Your task to perform on an android device: change the clock display to analog Image 0: 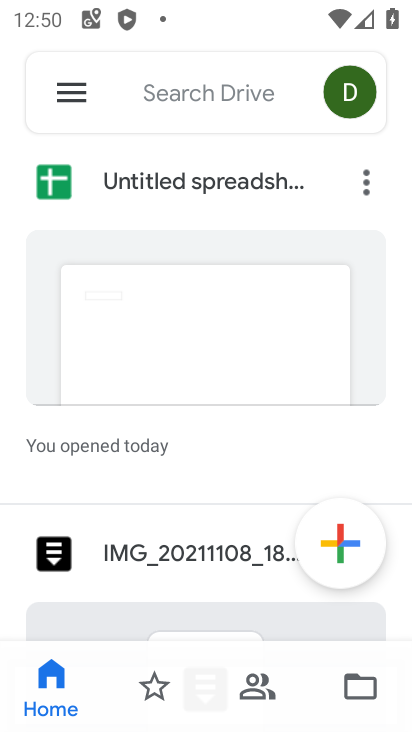
Step 0: press home button
Your task to perform on an android device: change the clock display to analog Image 1: 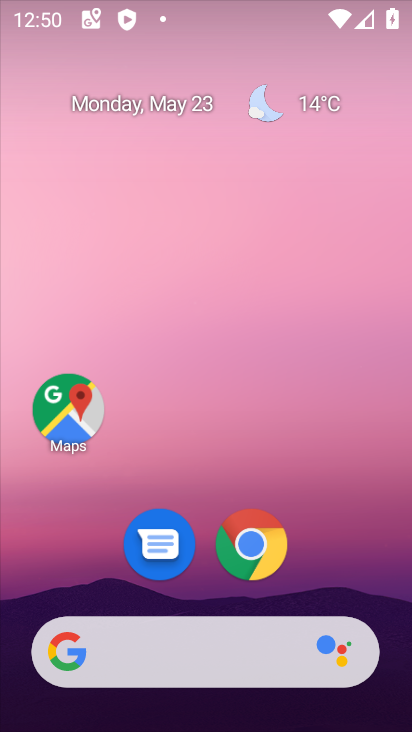
Step 1: drag from (290, 486) to (279, 32)
Your task to perform on an android device: change the clock display to analog Image 2: 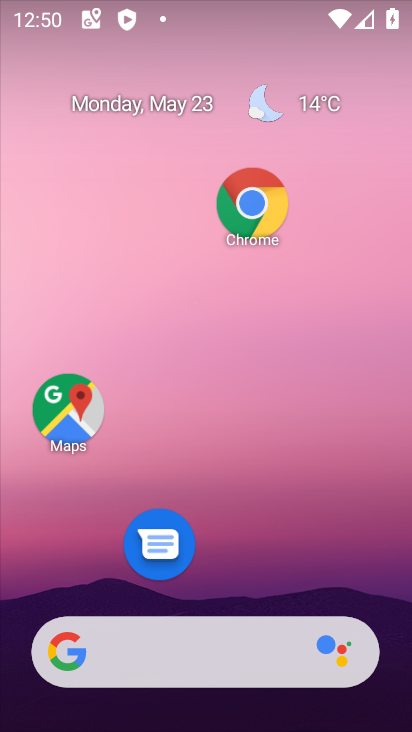
Step 2: drag from (209, 535) to (253, 94)
Your task to perform on an android device: change the clock display to analog Image 3: 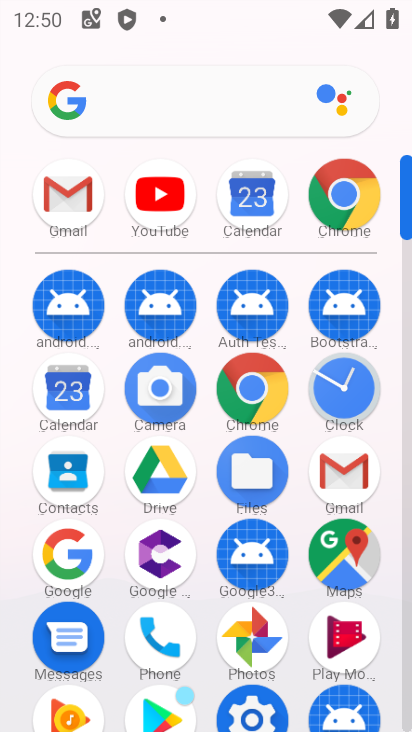
Step 3: click (354, 390)
Your task to perform on an android device: change the clock display to analog Image 4: 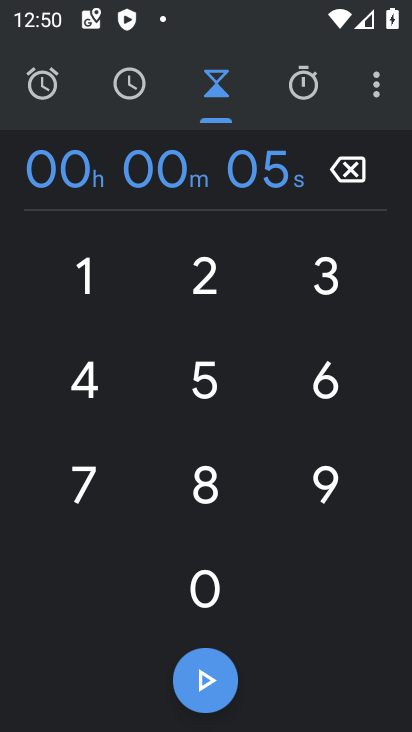
Step 4: click (381, 73)
Your task to perform on an android device: change the clock display to analog Image 5: 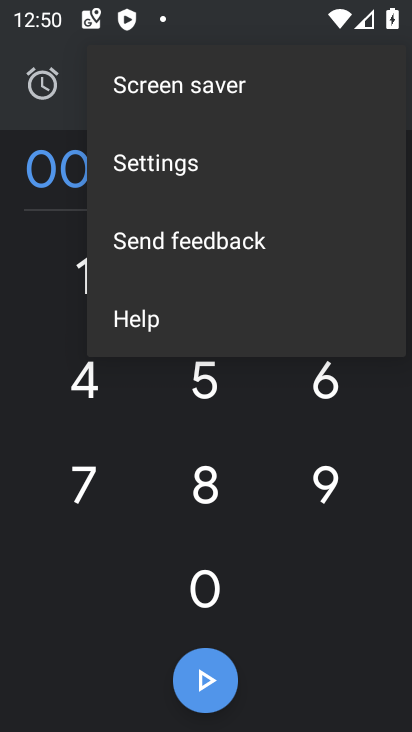
Step 5: click (208, 174)
Your task to perform on an android device: change the clock display to analog Image 6: 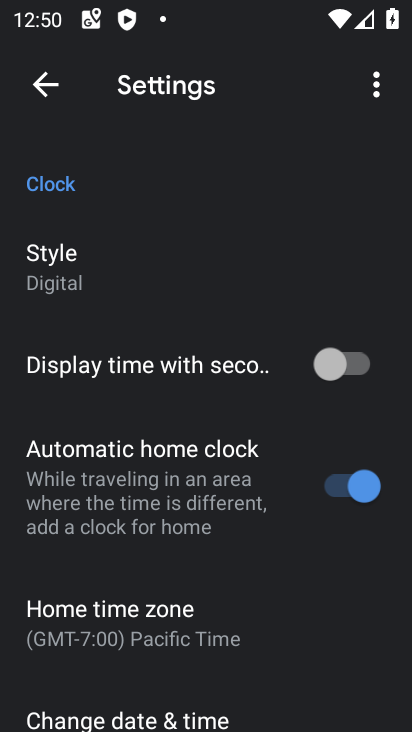
Step 6: click (69, 250)
Your task to perform on an android device: change the clock display to analog Image 7: 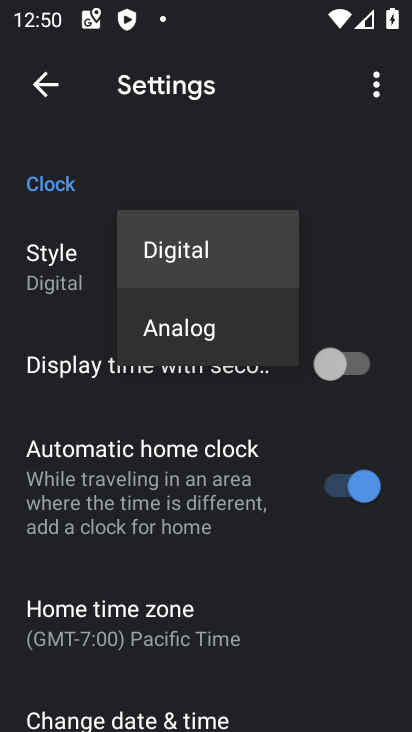
Step 7: click (198, 320)
Your task to perform on an android device: change the clock display to analog Image 8: 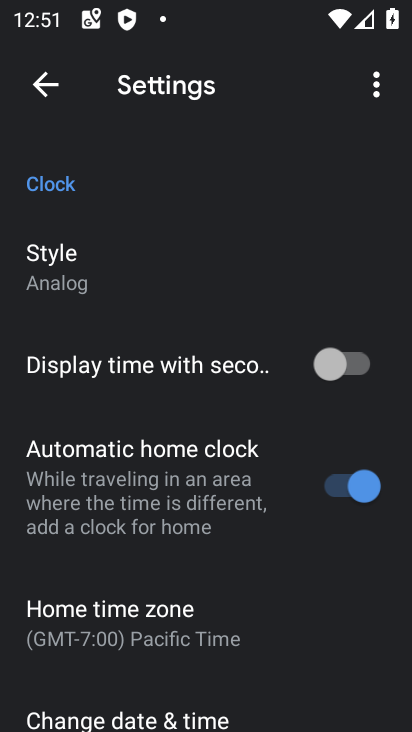
Step 8: click (57, 261)
Your task to perform on an android device: change the clock display to analog Image 9: 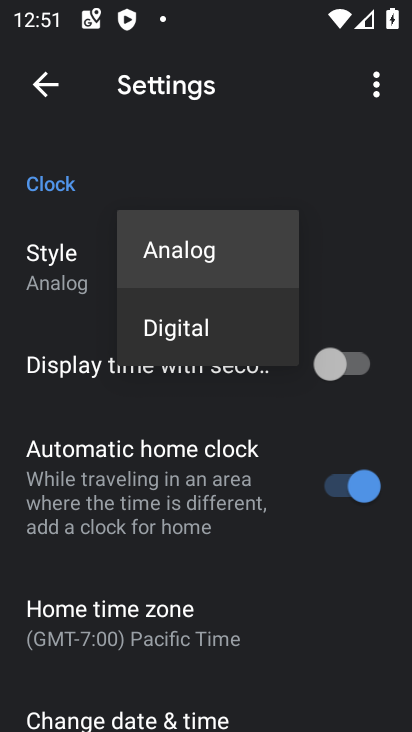
Step 9: task complete